Your task to perform on an android device: turn off location history Image 0: 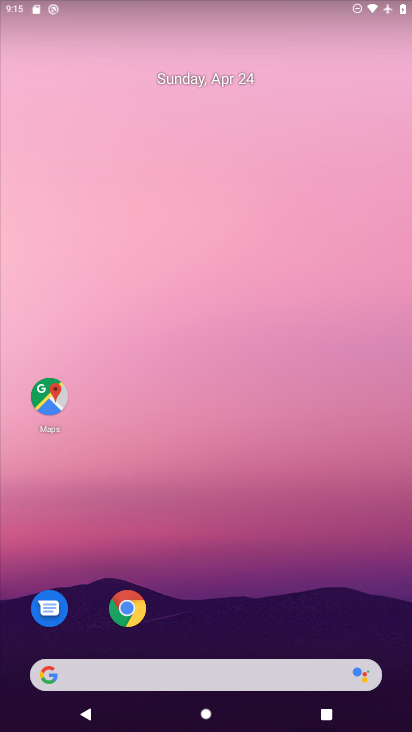
Step 0: drag from (221, 630) to (208, 86)
Your task to perform on an android device: turn off location history Image 1: 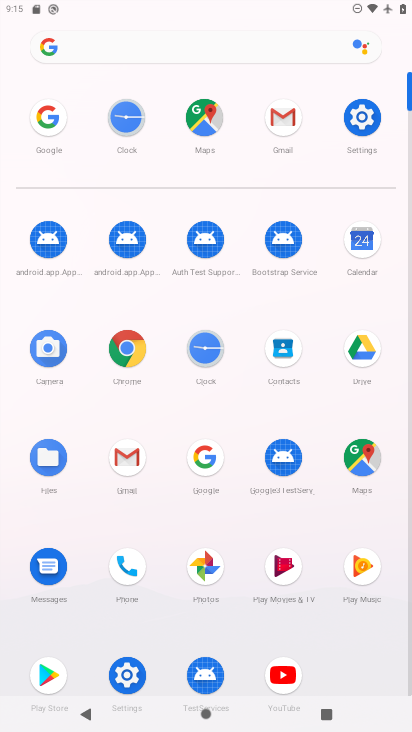
Step 1: click (364, 129)
Your task to perform on an android device: turn off location history Image 2: 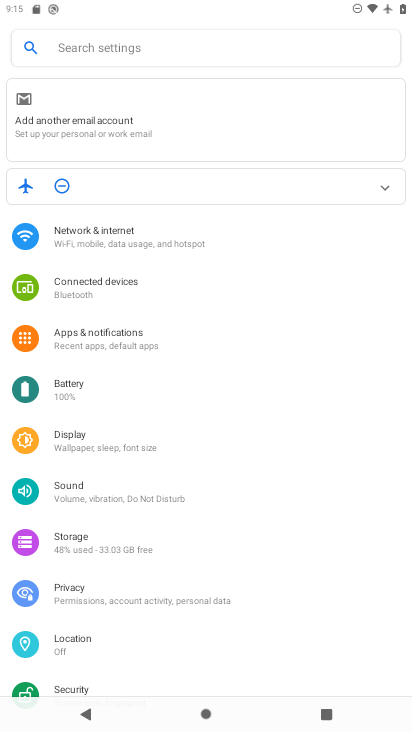
Step 2: click (115, 640)
Your task to perform on an android device: turn off location history Image 3: 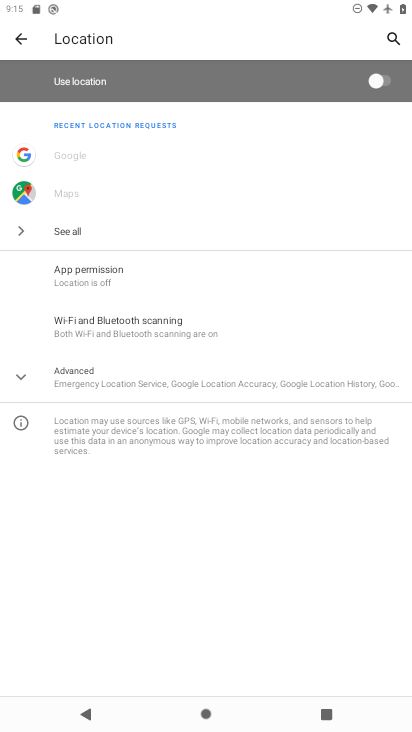
Step 3: click (124, 366)
Your task to perform on an android device: turn off location history Image 4: 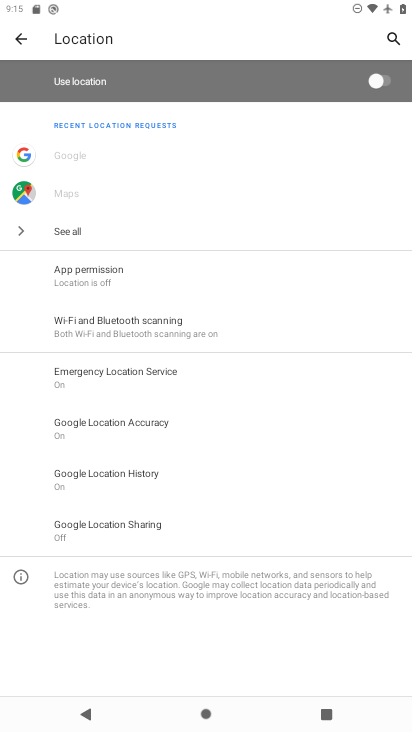
Step 4: click (127, 482)
Your task to perform on an android device: turn off location history Image 5: 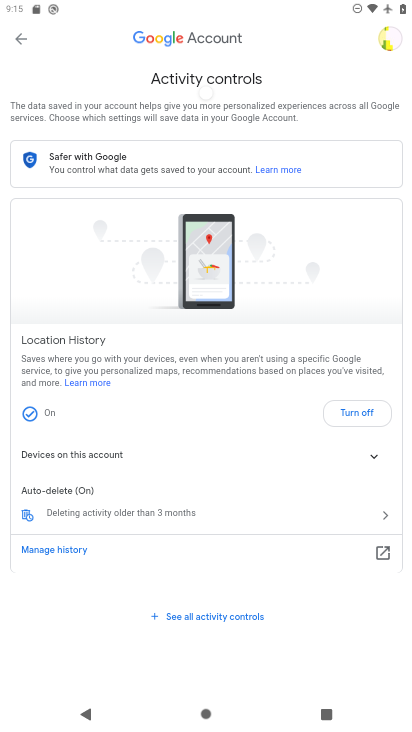
Step 5: drag from (285, 474) to (275, 279)
Your task to perform on an android device: turn off location history Image 6: 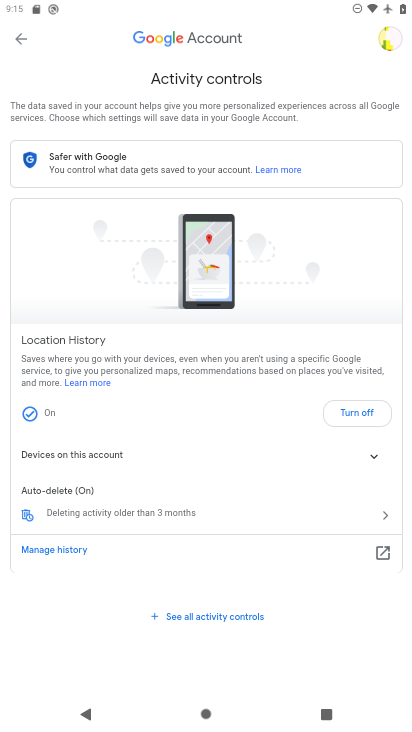
Step 6: click (349, 406)
Your task to perform on an android device: turn off location history Image 7: 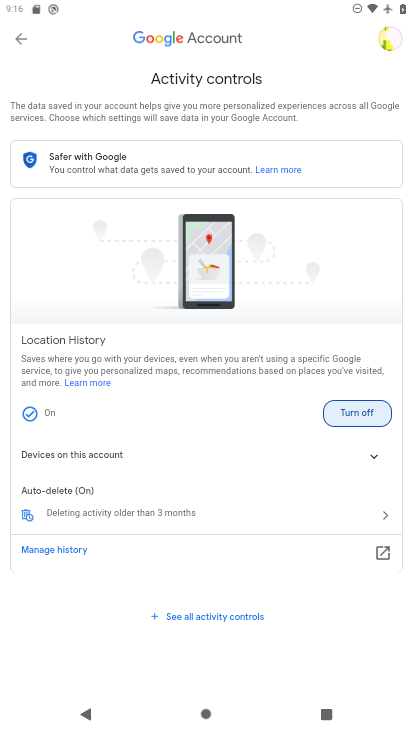
Step 7: click (368, 413)
Your task to perform on an android device: turn off location history Image 8: 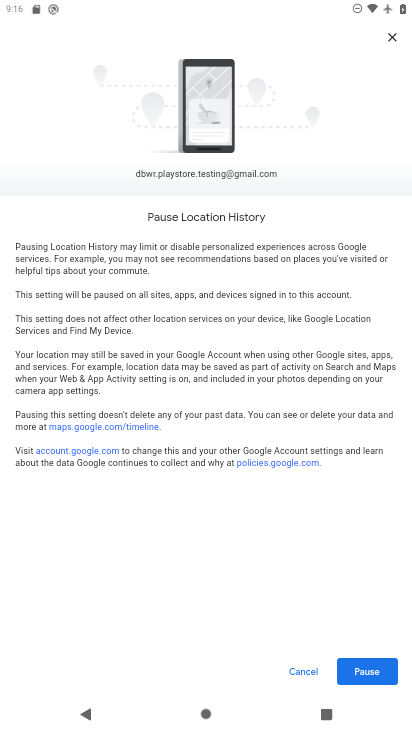
Step 8: click (375, 676)
Your task to perform on an android device: turn off location history Image 9: 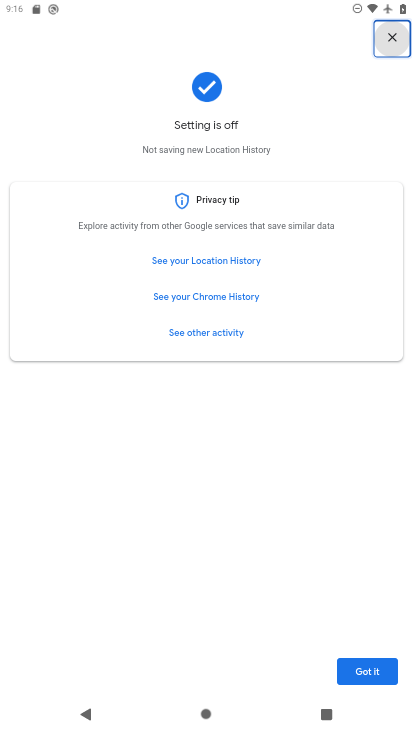
Step 9: task complete